Your task to perform on an android device: open chrome and create a bookmark for the current page Image 0: 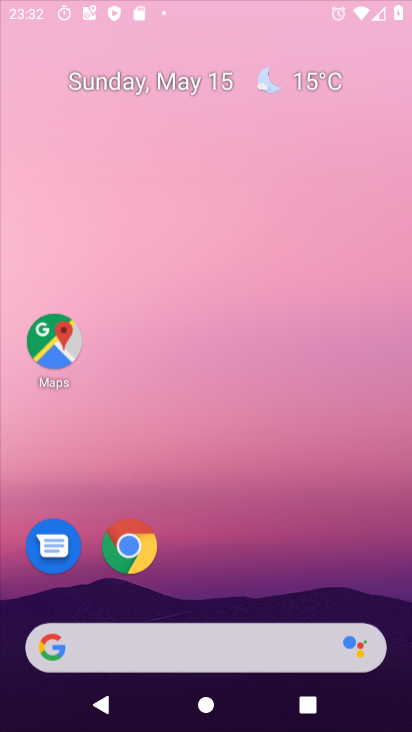
Step 0: drag from (188, 532) to (118, 226)
Your task to perform on an android device: open chrome and create a bookmark for the current page Image 1: 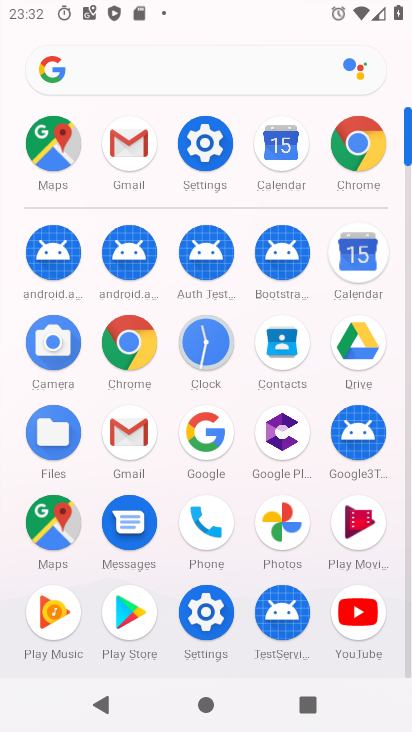
Step 1: click (351, 143)
Your task to perform on an android device: open chrome and create a bookmark for the current page Image 2: 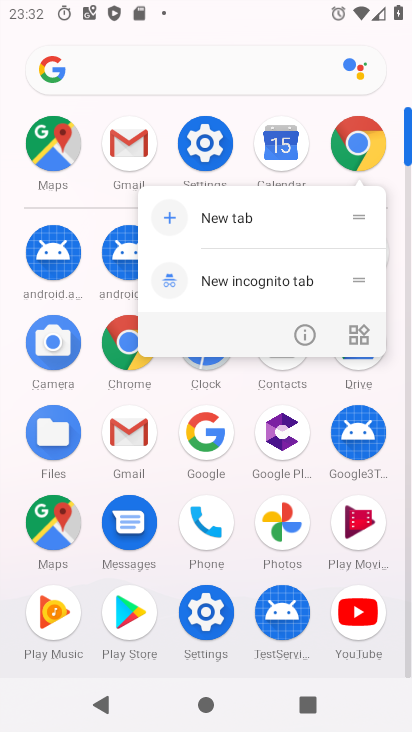
Step 2: click (208, 212)
Your task to perform on an android device: open chrome and create a bookmark for the current page Image 3: 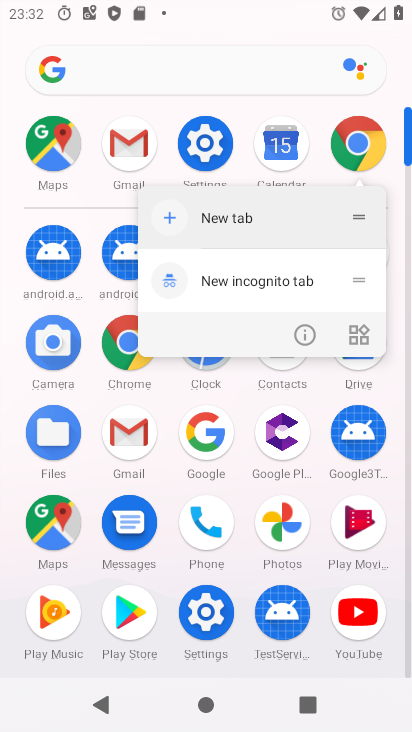
Step 3: click (208, 216)
Your task to perform on an android device: open chrome and create a bookmark for the current page Image 4: 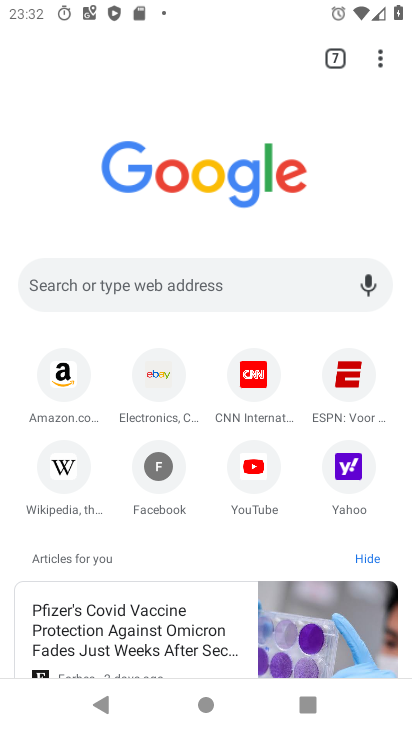
Step 4: click (71, 281)
Your task to perform on an android device: open chrome and create a bookmark for the current page Image 5: 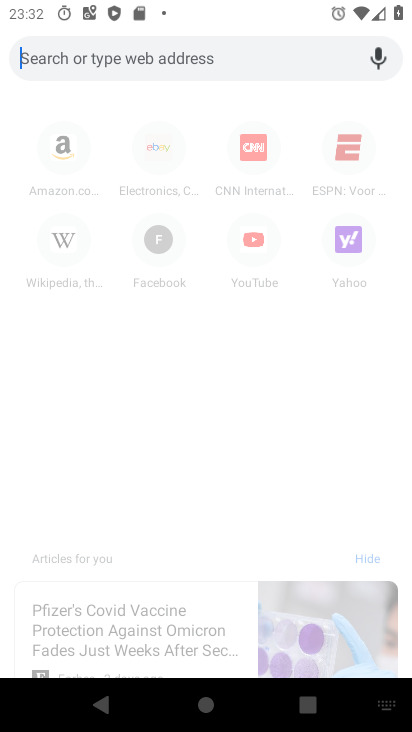
Step 5: type "www.snapdeal.com"
Your task to perform on an android device: open chrome and create a bookmark for the current page Image 6: 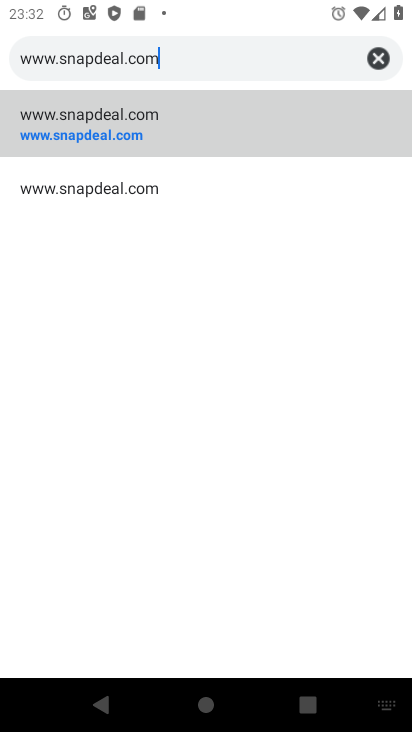
Step 6: click (74, 138)
Your task to perform on an android device: open chrome and create a bookmark for the current page Image 7: 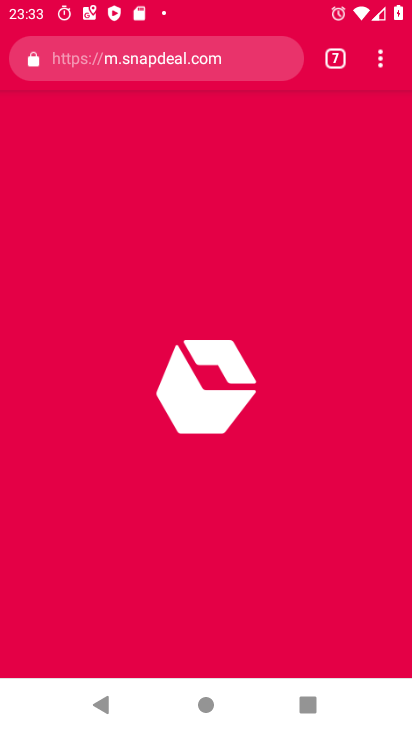
Step 7: task complete